Your task to perform on an android device: Search for pizza restaurants on Maps Image 0: 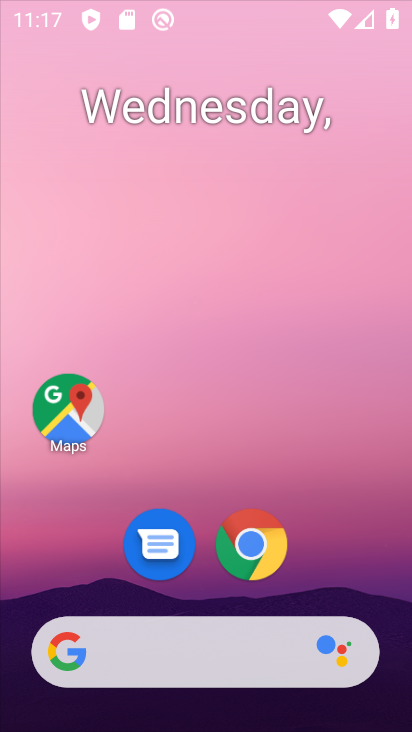
Step 0: press home button
Your task to perform on an android device: Search for pizza restaurants on Maps Image 1: 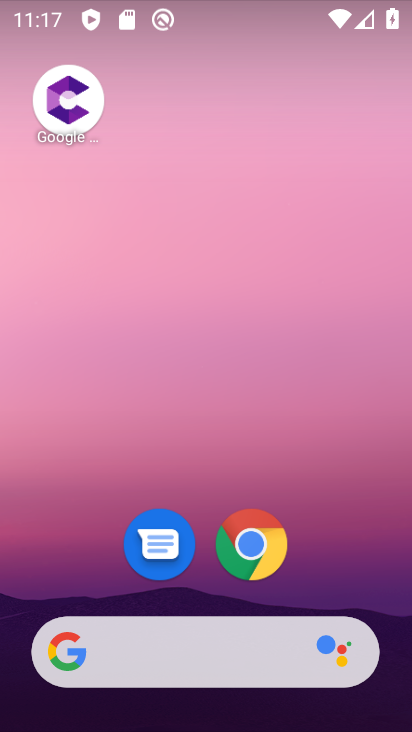
Step 1: drag from (344, 566) to (337, 0)
Your task to perform on an android device: Search for pizza restaurants on Maps Image 2: 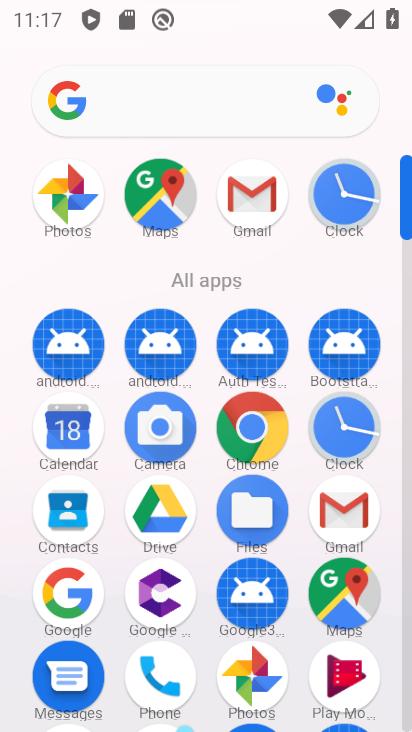
Step 2: click (165, 170)
Your task to perform on an android device: Search for pizza restaurants on Maps Image 3: 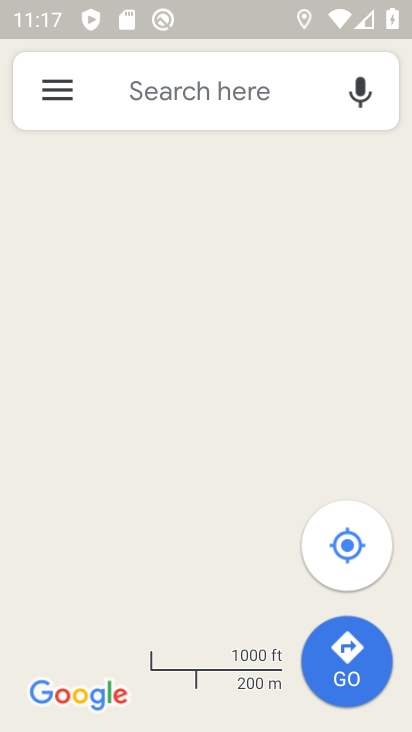
Step 3: click (218, 83)
Your task to perform on an android device: Search for pizza restaurants on Maps Image 4: 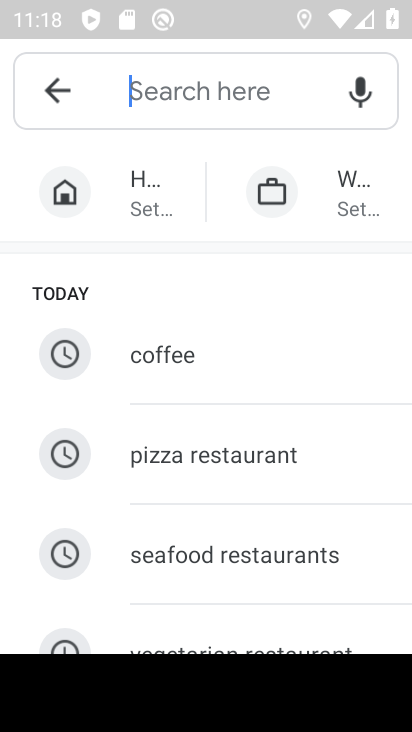
Step 4: type "pizza restaurants"
Your task to perform on an android device: Search for pizza restaurants on Maps Image 5: 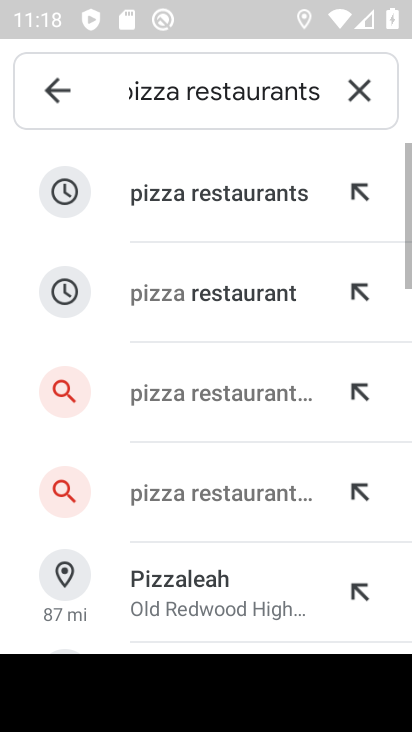
Step 5: click (264, 190)
Your task to perform on an android device: Search for pizza restaurants on Maps Image 6: 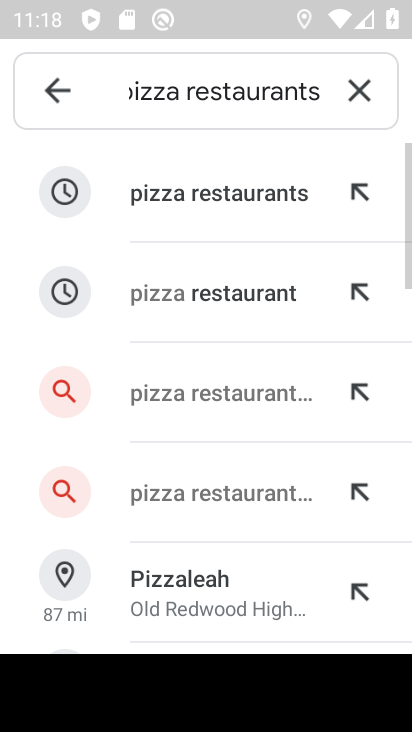
Step 6: click (264, 190)
Your task to perform on an android device: Search for pizza restaurants on Maps Image 7: 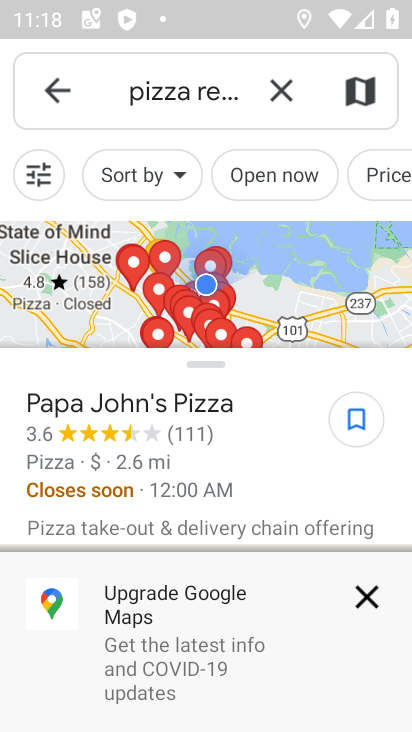
Step 7: task complete